Your task to perform on an android device: Go to CNN.com Image 0: 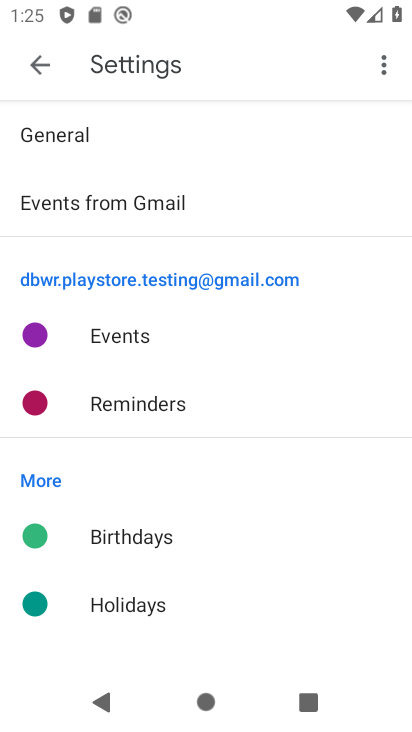
Step 0: press home button
Your task to perform on an android device: Go to CNN.com Image 1: 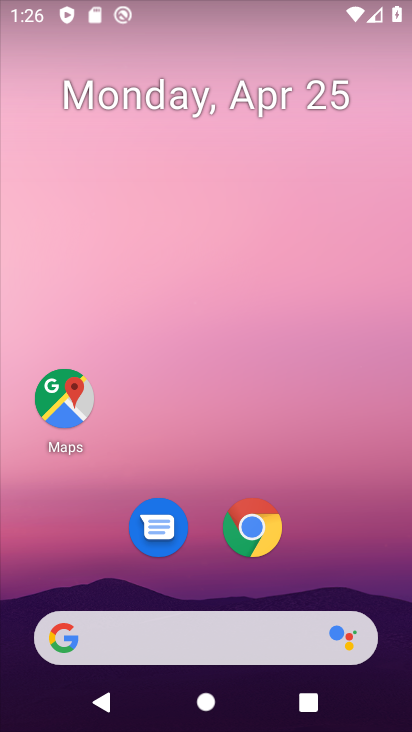
Step 1: click (263, 523)
Your task to perform on an android device: Go to CNN.com Image 2: 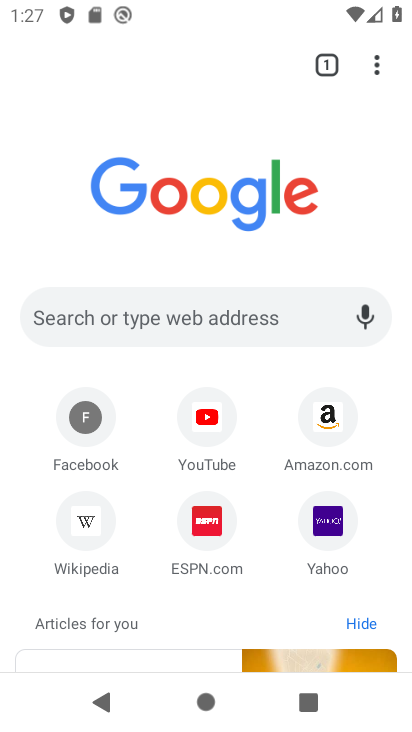
Step 2: click (192, 304)
Your task to perform on an android device: Go to CNN.com Image 3: 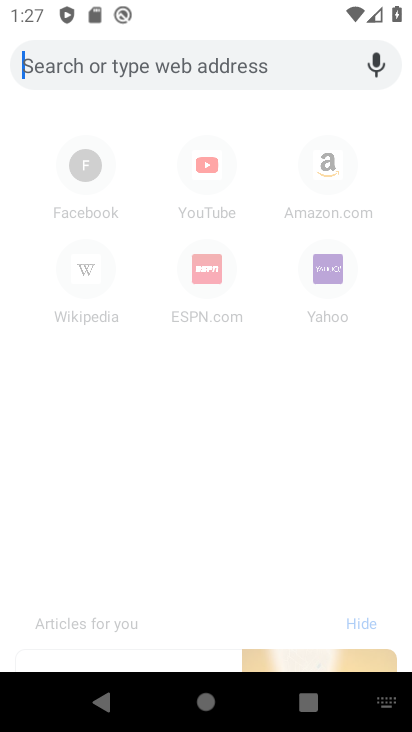
Step 3: type "cnn.com"
Your task to perform on an android device: Go to CNN.com Image 4: 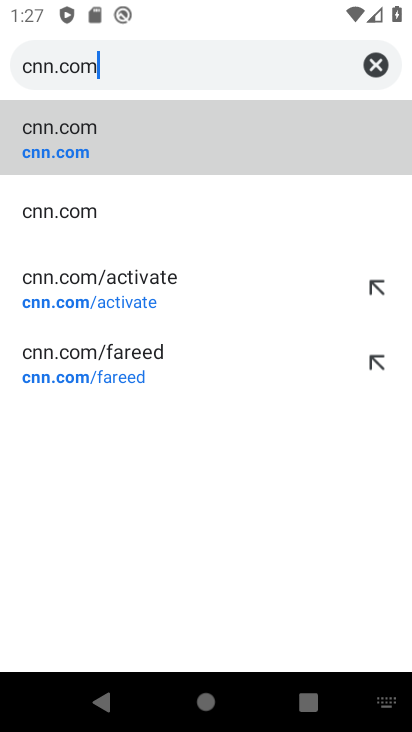
Step 4: click (152, 167)
Your task to perform on an android device: Go to CNN.com Image 5: 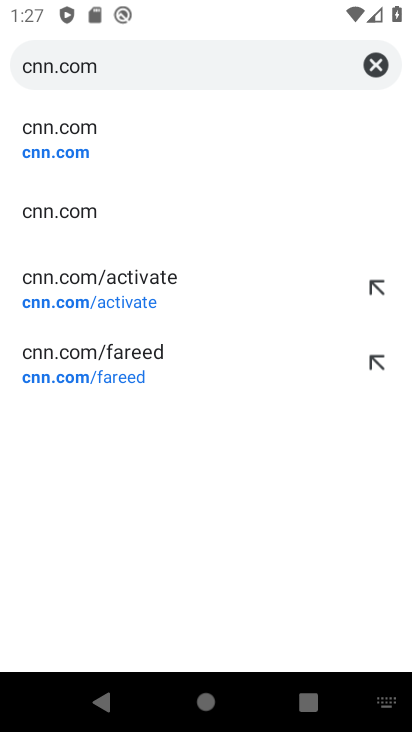
Step 5: click (142, 155)
Your task to perform on an android device: Go to CNN.com Image 6: 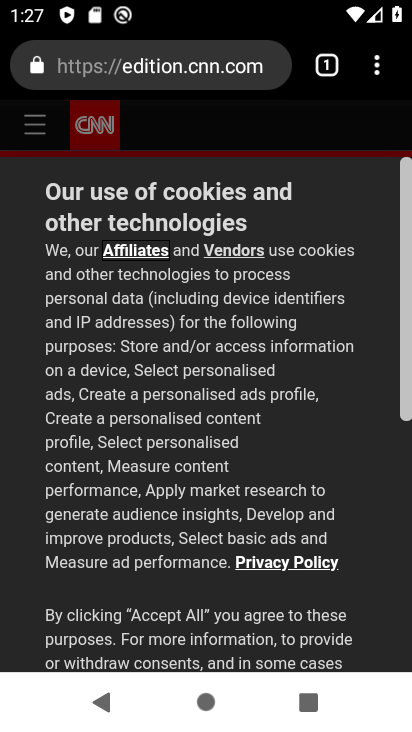
Step 6: task complete